Your task to perform on an android device: Open wifi settings Image 0: 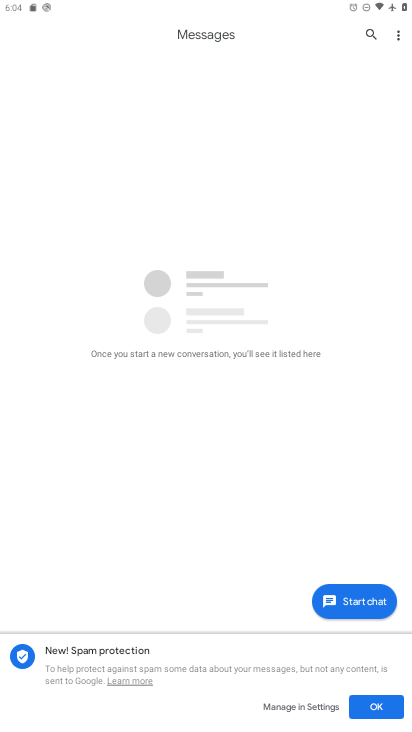
Step 0: press home button
Your task to perform on an android device: Open wifi settings Image 1: 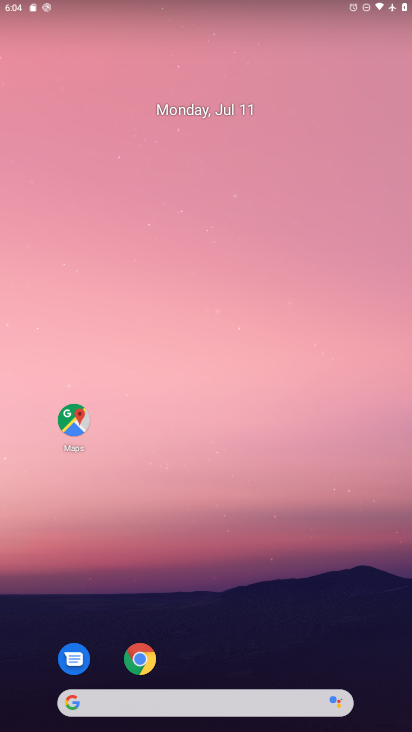
Step 1: drag from (379, 665) to (335, 159)
Your task to perform on an android device: Open wifi settings Image 2: 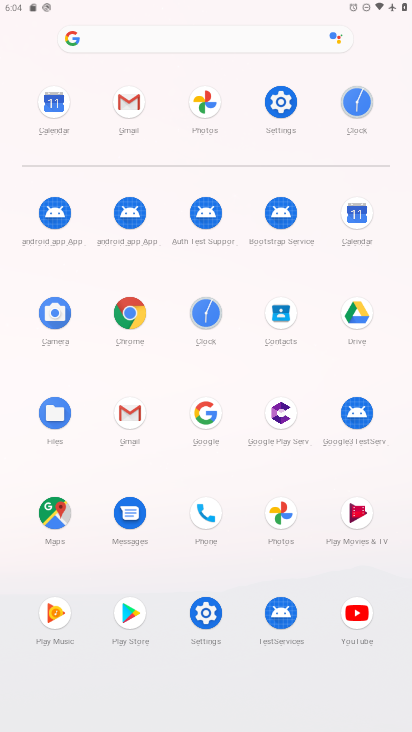
Step 2: click (205, 621)
Your task to perform on an android device: Open wifi settings Image 3: 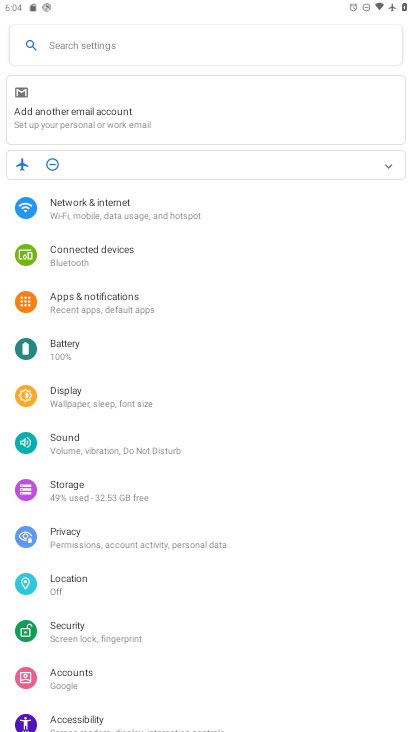
Step 3: click (80, 192)
Your task to perform on an android device: Open wifi settings Image 4: 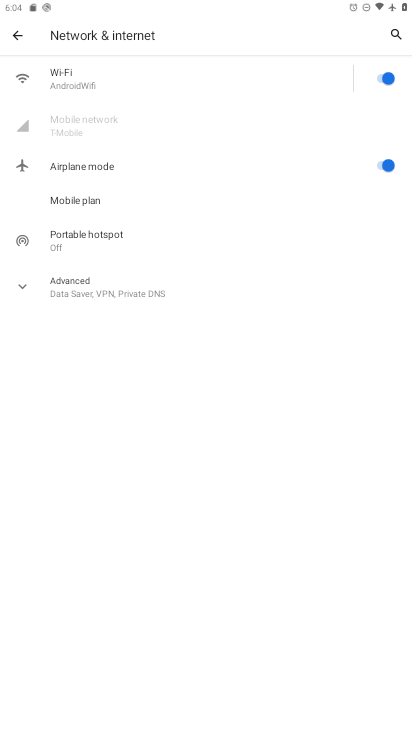
Step 4: click (46, 75)
Your task to perform on an android device: Open wifi settings Image 5: 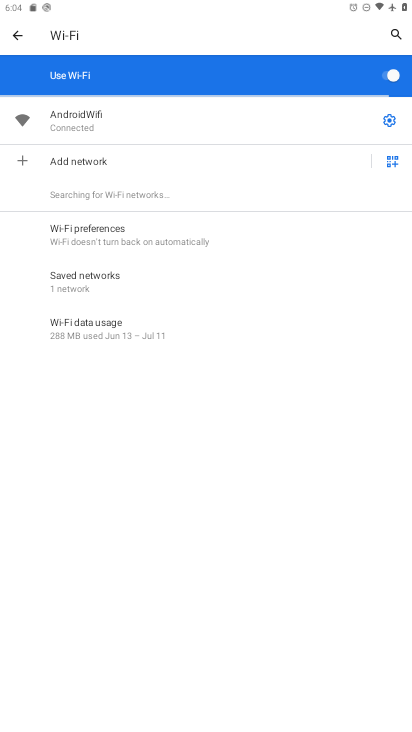
Step 5: task complete